Your task to perform on an android device: turn off location history Image 0: 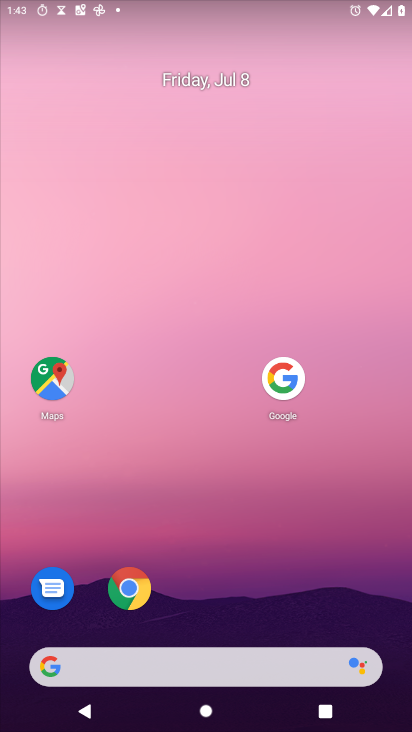
Step 0: drag from (214, 651) to (290, 137)
Your task to perform on an android device: turn off location history Image 1: 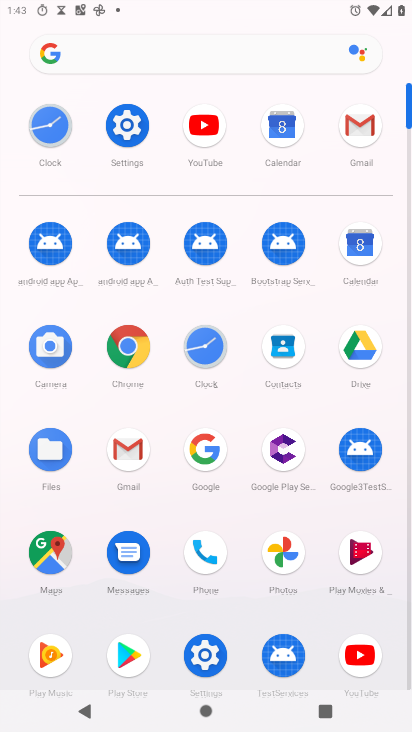
Step 1: click (134, 129)
Your task to perform on an android device: turn off location history Image 2: 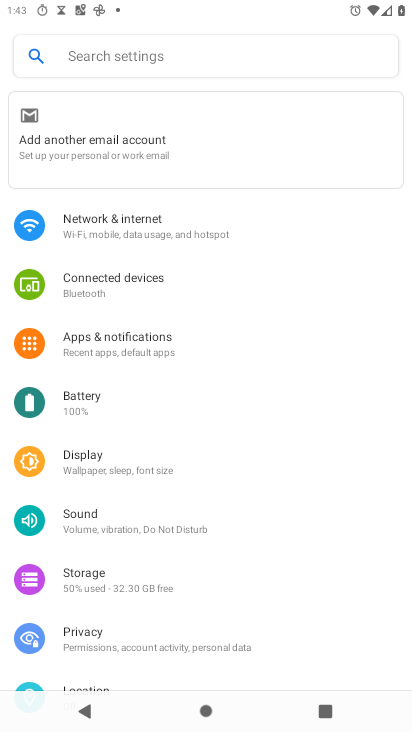
Step 2: drag from (186, 618) to (337, 148)
Your task to perform on an android device: turn off location history Image 3: 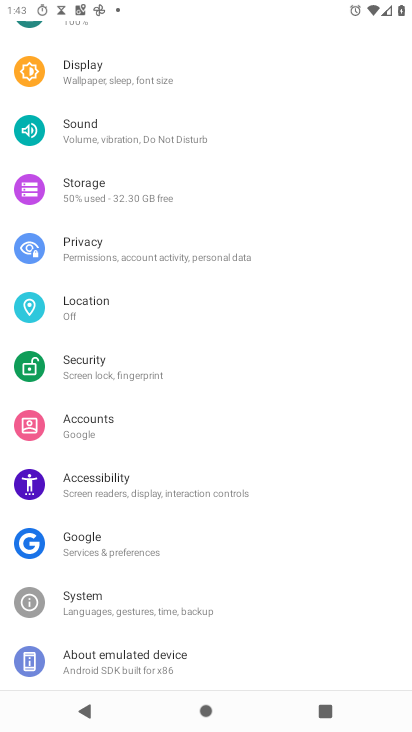
Step 3: click (82, 312)
Your task to perform on an android device: turn off location history Image 4: 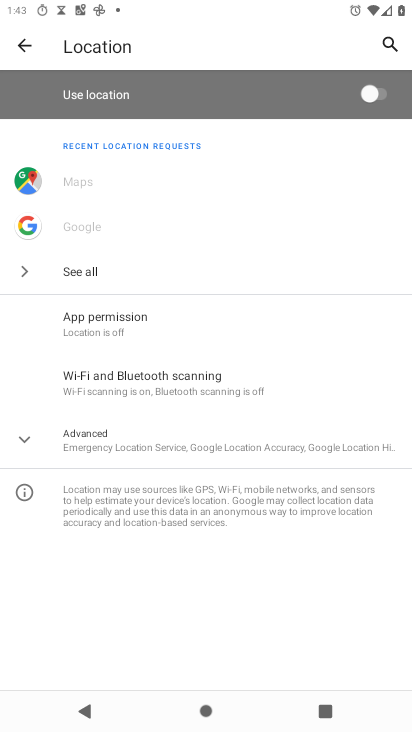
Step 4: click (139, 437)
Your task to perform on an android device: turn off location history Image 5: 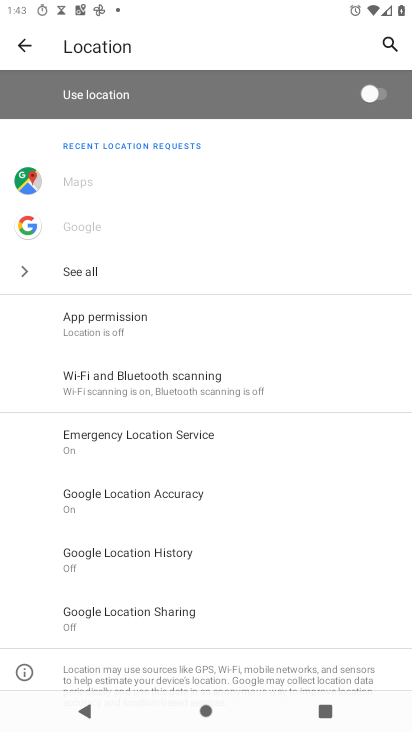
Step 5: click (127, 560)
Your task to perform on an android device: turn off location history Image 6: 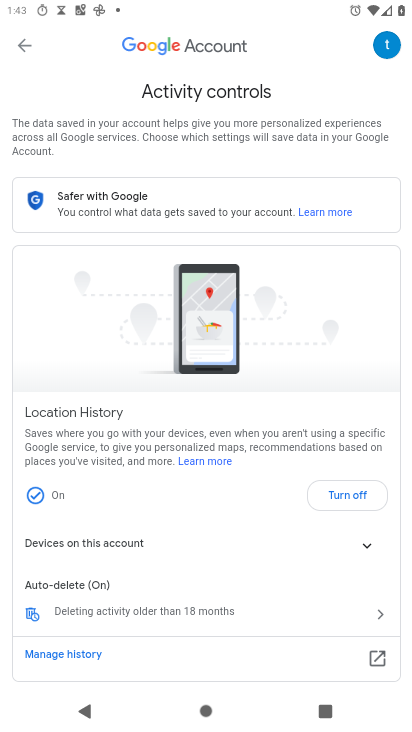
Step 6: click (346, 495)
Your task to perform on an android device: turn off location history Image 7: 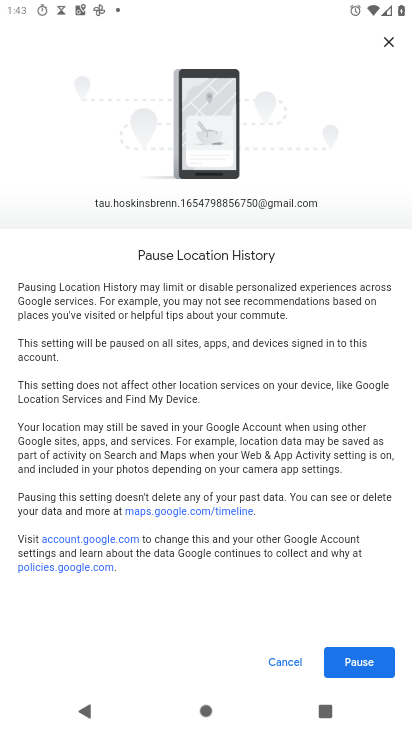
Step 7: click (353, 662)
Your task to perform on an android device: turn off location history Image 8: 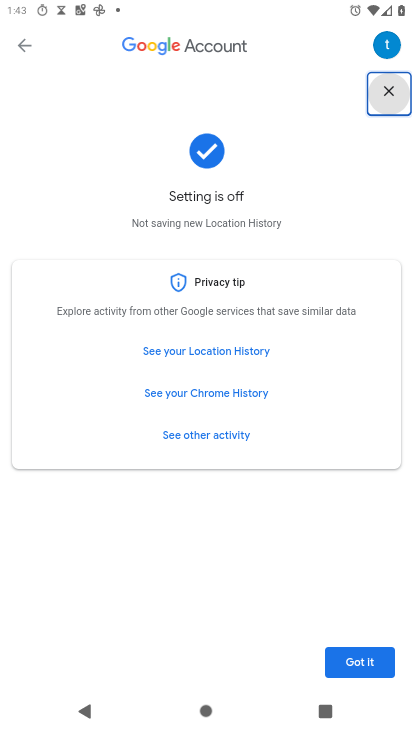
Step 8: click (375, 659)
Your task to perform on an android device: turn off location history Image 9: 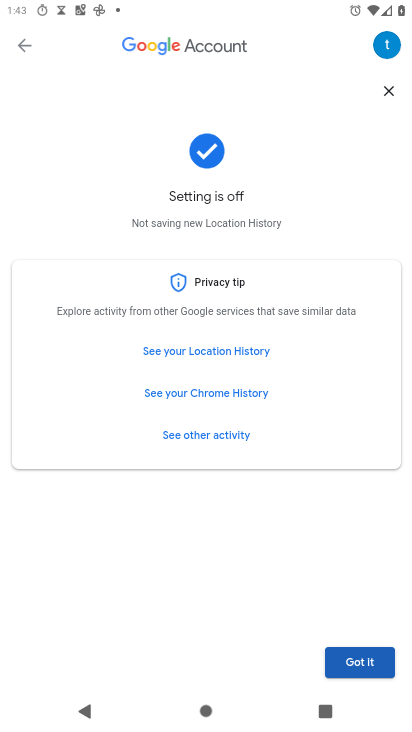
Step 9: click (361, 668)
Your task to perform on an android device: turn off location history Image 10: 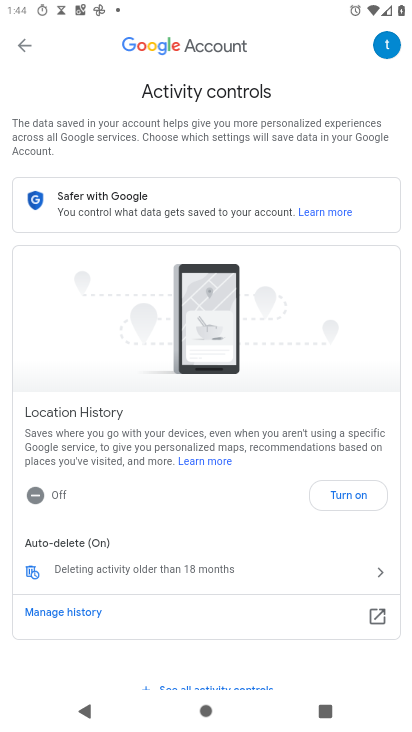
Step 10: task complete